Your task to perform on an android device: check the backup settings in the google photos Image 0: 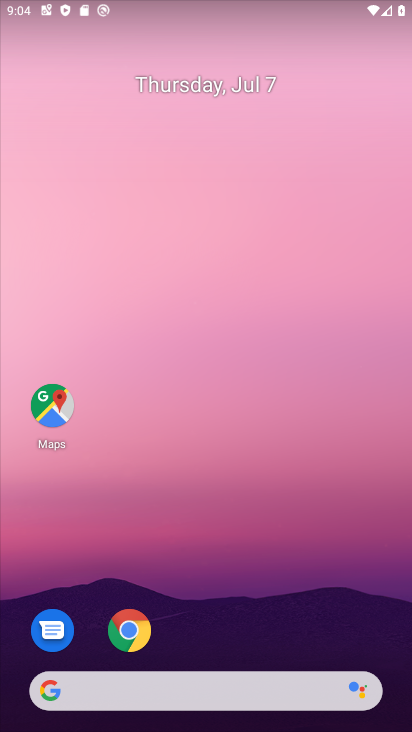
Step 0: drag from (193, 631) to (193, 124)
Your task to perform on an android device: check the backup settings in the google photos Image 1: 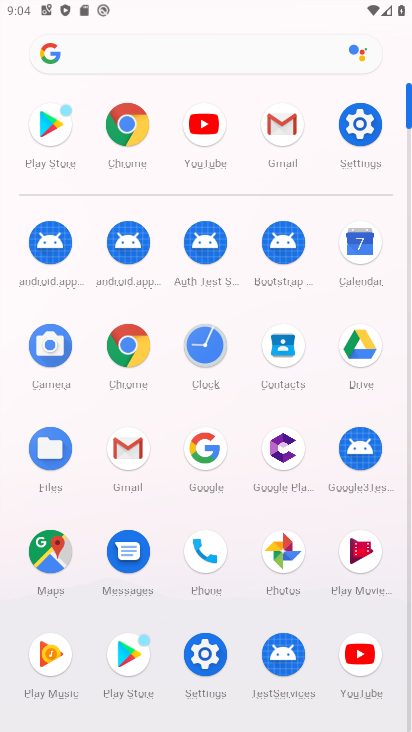
Step 1: click (287, 543)
Your task to perform on an android device: check the backup settings in the google photos Image 2: 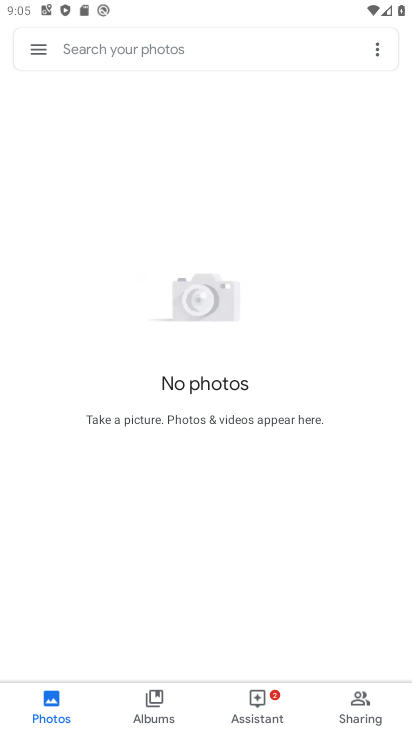
Step 2: click (31, 47)
Your task to perform on an android device: check the backup settings in the google photos Image 3: 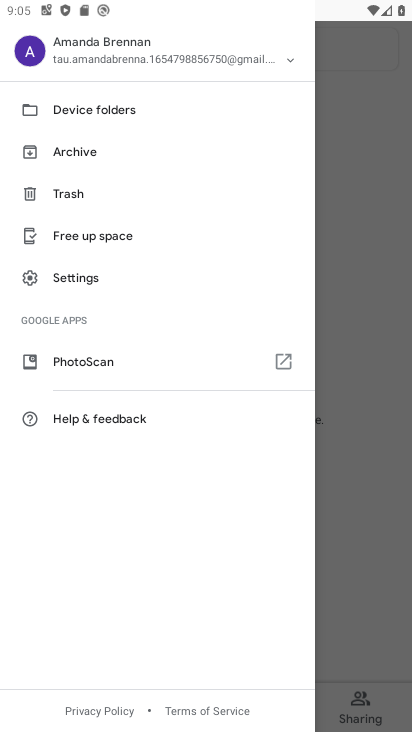
Step 3: click (66, 281)
Your task to perform on an android device: check the backup settings in the google photos Image 4: 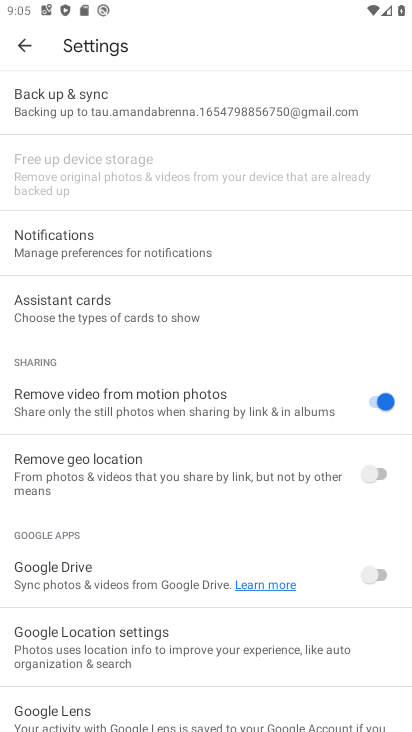
Step 4: click (102, 109)
Your task to perform on an android device: check the backup settings in the google photos Image 5: 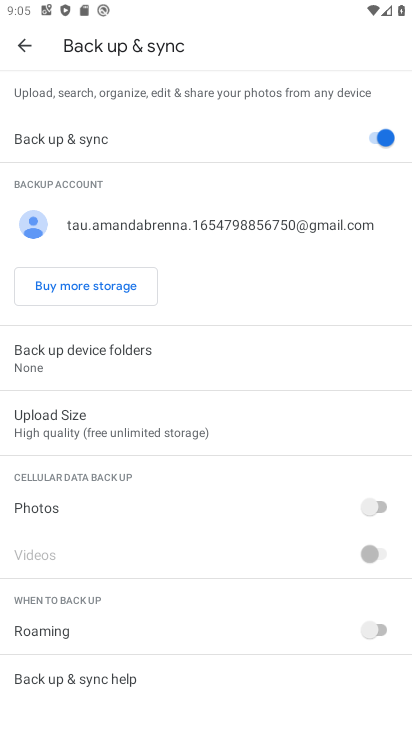
Step 5: task complete